Your task to perform on an android device: turn on the 24-hour format for clock Image 0: 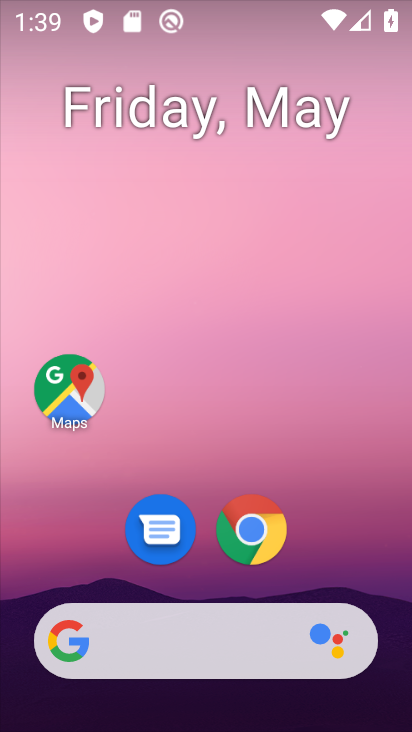
Step 0: drag from (318, 544) to (281, 121)
Your task to perform on an android device: turn on the 24-hour format for clock Image 1: 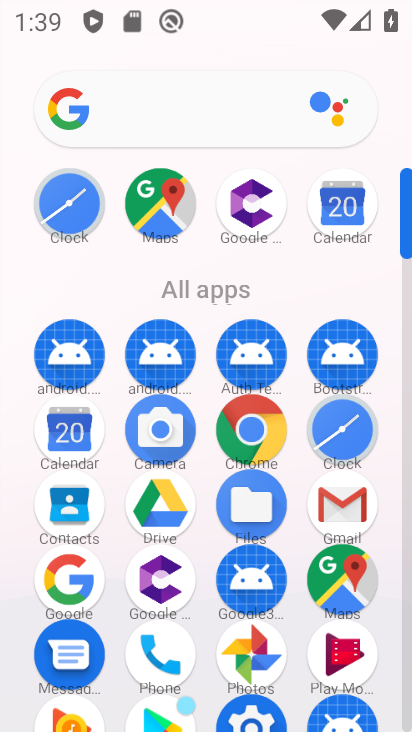
Step 1: click (341, 441)
Your task to perform on an android device: turn on the 24-hour format for clock Image 2: 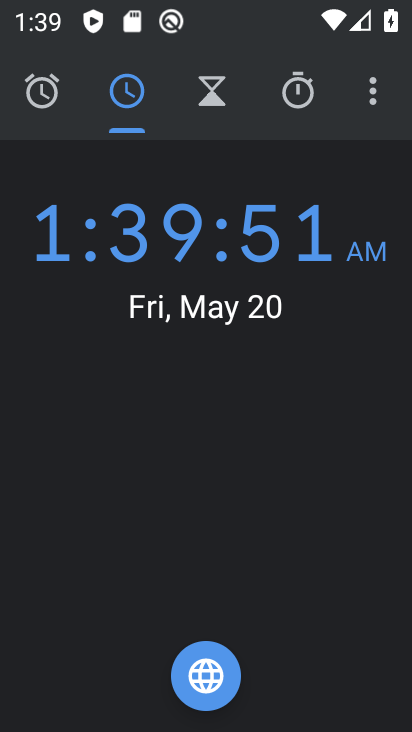
Step 2: click (370, 85)
Your task to perform on an android device: turn on the 24-hour format for clock Image 3: 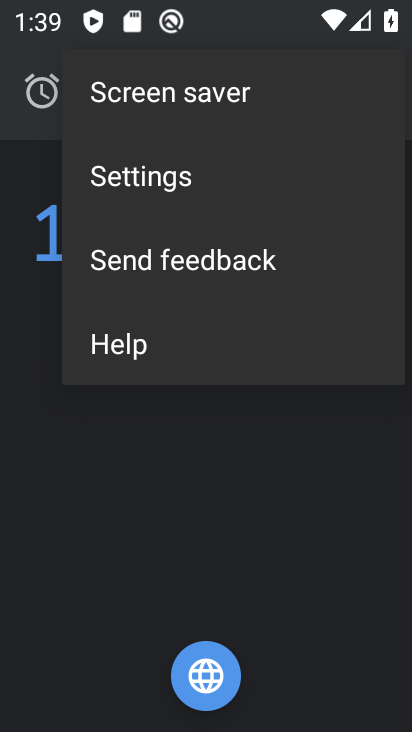
Step 3: click (170, 183)
Your task to perform on an android device: turn on the 24-hour format for clock Image 4: 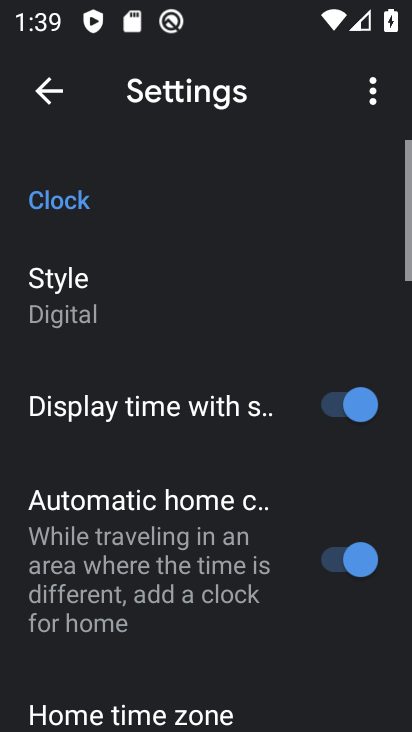
Step 4: drag from (220, 555) to (218, 146)
Your task to perform on an android device: turn on the 24-hour format for clock Image 5: 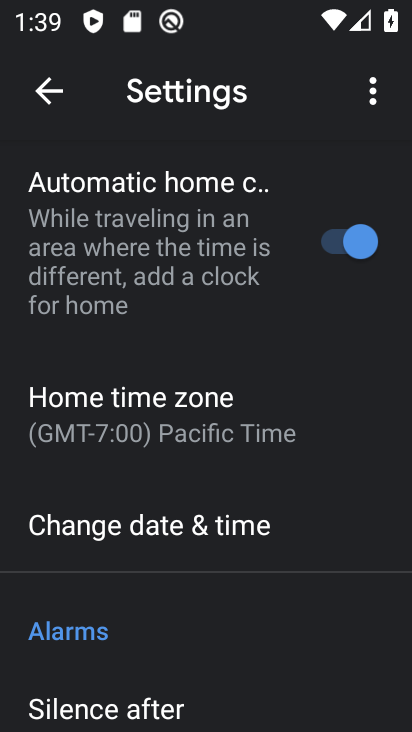
Step 5: click (156, 505)
Your task to perform on an android device: turn on the 24-hour format for clock Image 6: 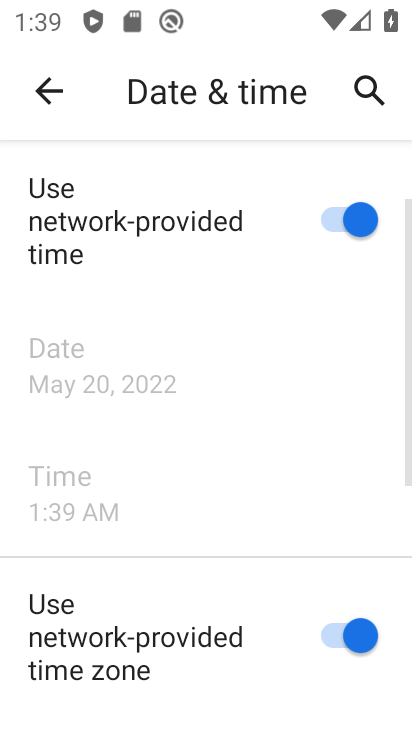
Step 6: drag from (266, 543) to (273, 27)
Your task to perform on an android device: turn on the 24-hour format for clock Image 7: 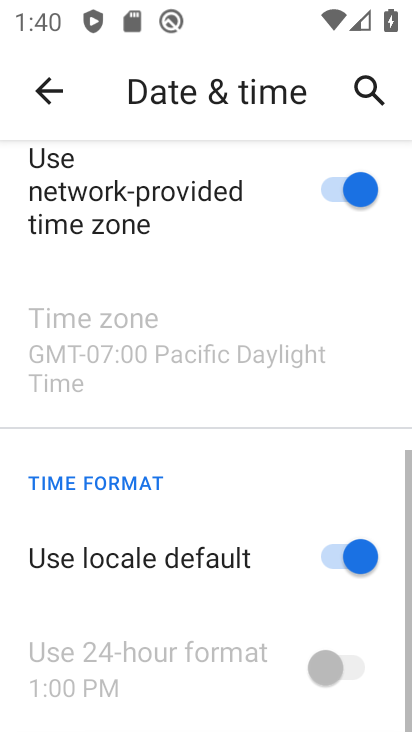
Step 7: click (338, 561)
Your task to perform on an android device: turn on the 24-hour format for clock Image 8: 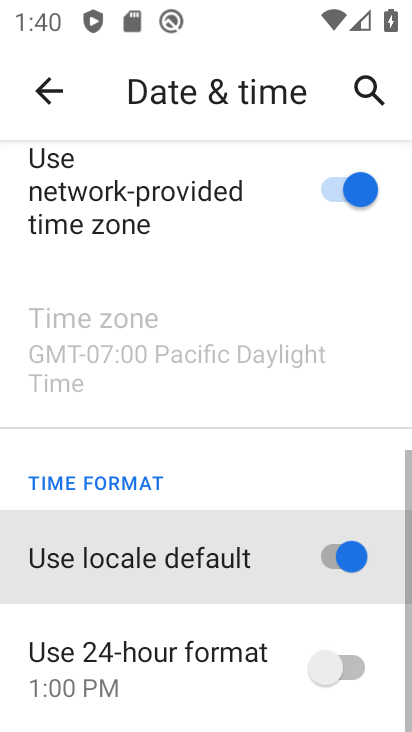
Step 8: click (322, 686)
Your task to perform on an android device: turn on the 24-hour format for clock Image 9: 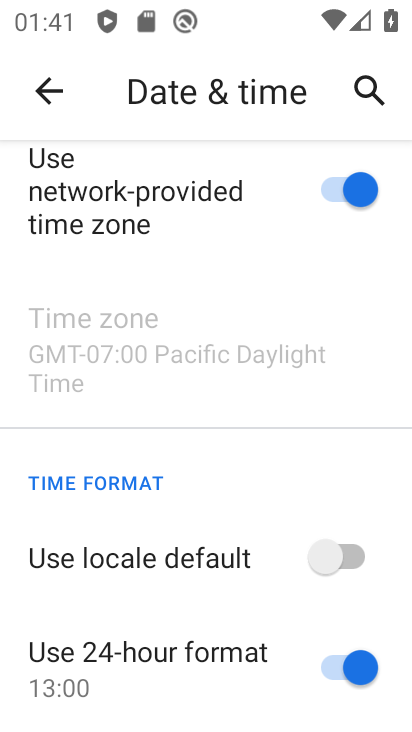
Step 9: task complete